Your task to perform on an android device: visit the assistant section in the google photos Image 0: 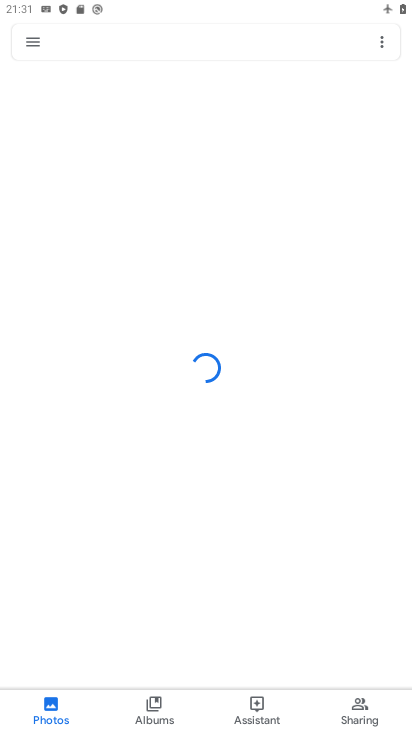
Step 0: press home button
Your task to perform on an android device: visit the assistant section in the google photos Image 1: 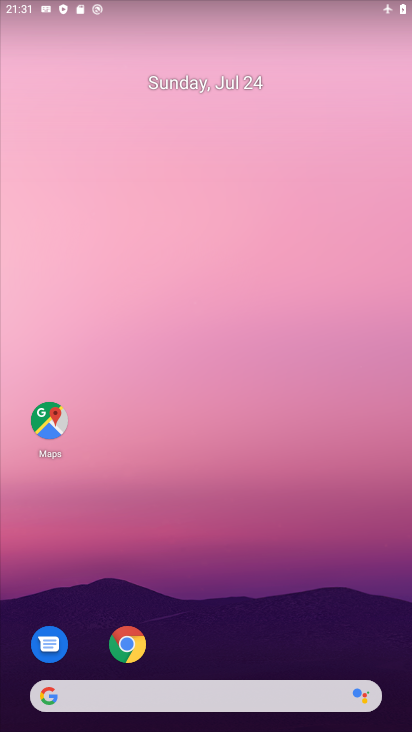
Step 1: drag from (370, 652) to (346, 32)
Your task to perform on an android device: visit the assistant section in the google photos Image 2: 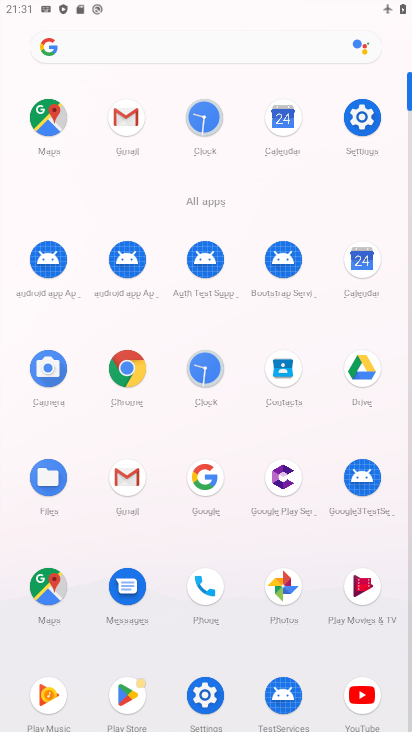
Step 2: click (286, 587)
Your task to perform on an android device: visit the assistant section in the google photos Image 3: 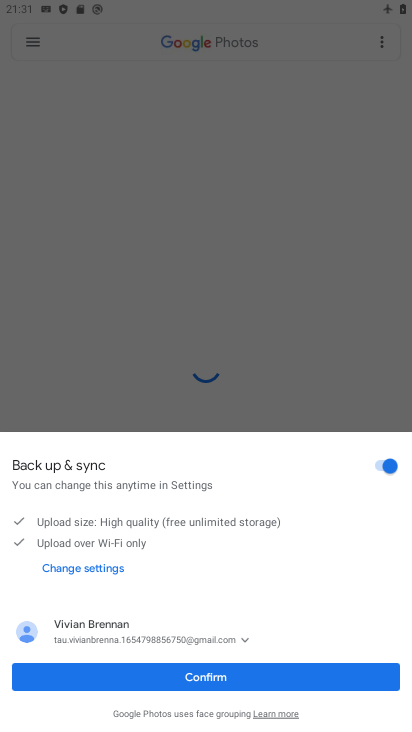
Step 3: click (205, 677)
Your task to perform on an android device: visit the assistant section in the google photos Image 4: 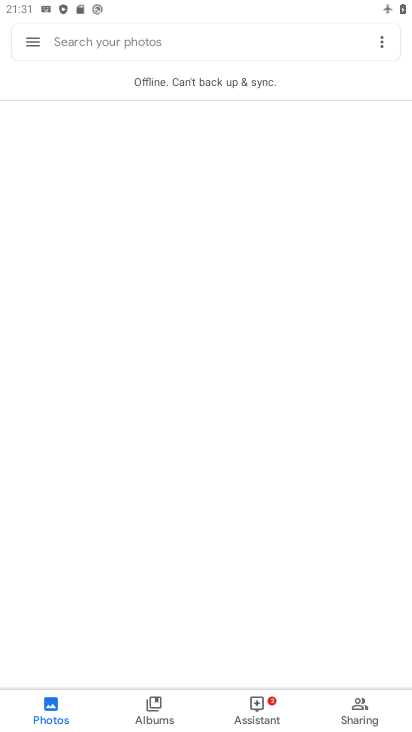
Step 4: click (263, 710)
Your task to perform on an android device: visit the assistant section in the google photos Image 5: 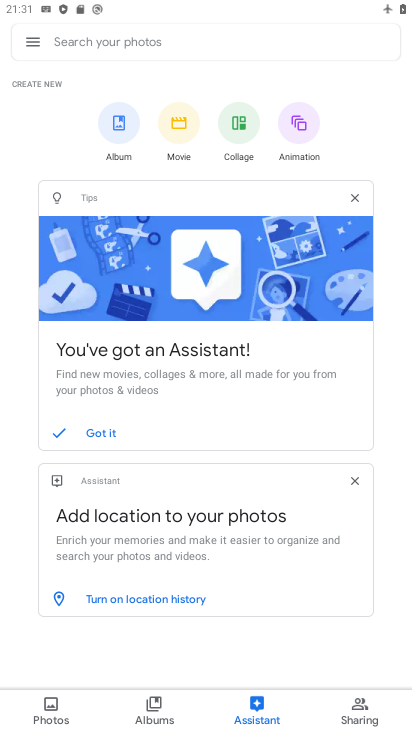
Step 5: task complete